Your task to perform on an android device: Go to Maps Image 0: 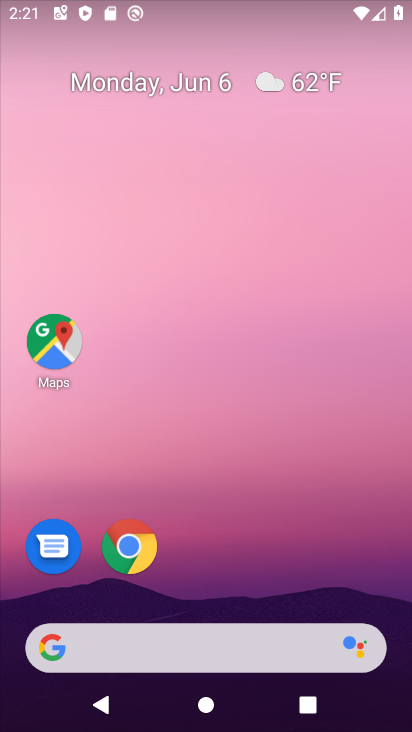
Step 0: click (62, 339)
Your task to perform on an android device: Go to Maps Image 1: 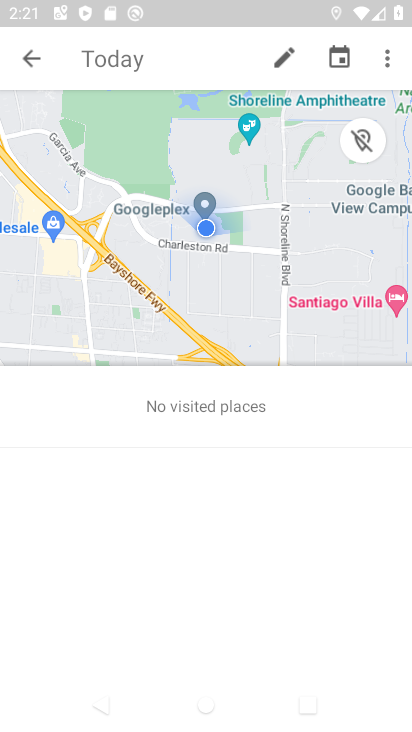
Step 1: task complete